Your task to perform on an android device: Open Android settings Image 0: 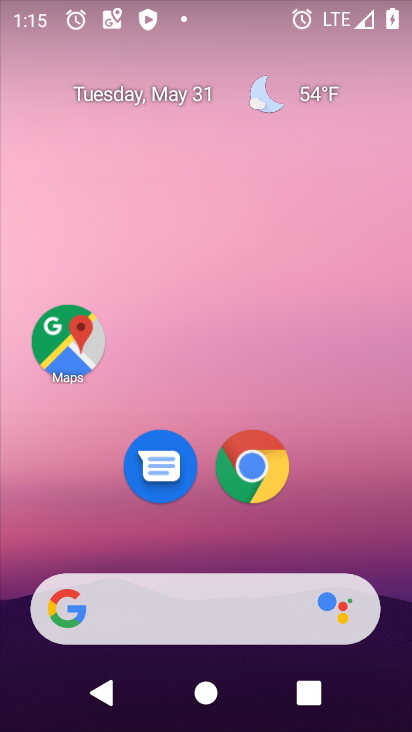
Step 0: drag from (249, 598) to (138, 8)
Your task to perform on an android device: Open Android settings Image 1: 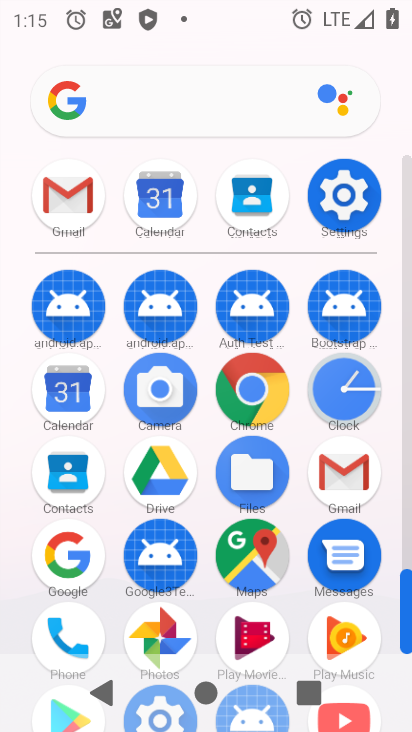
Step 1: click (357, 185)
Your task to perform on an android device: Open Android settings Image 2: 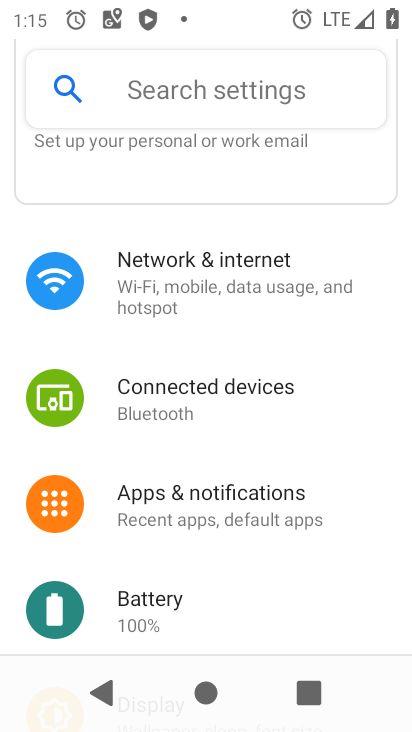
Step 2: task complete